Your task to perform on an android device: toggle improve location accuracy Image 0: 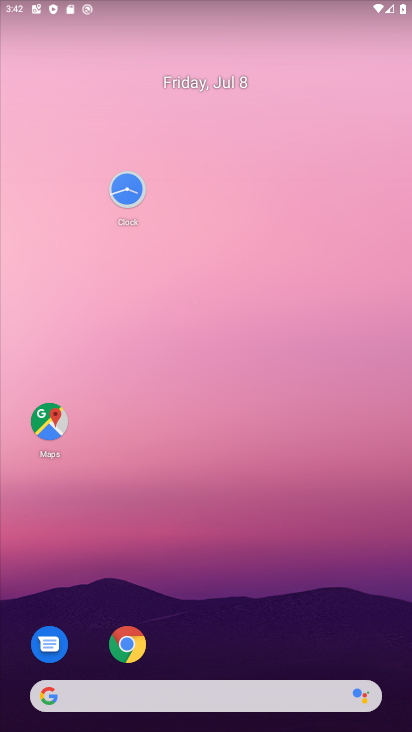
Step 0: drag from (256, 659) to (177, 166)
Your task to perform on an android device: toggle improve location accuracy Image 1: 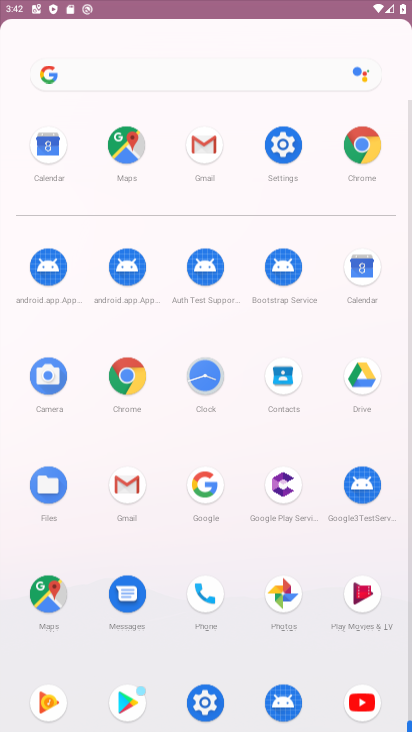
Step 1: drag from (126, 296) to (55, 52)
Your task to perform on an android device: toggle improve location accuracy Image 2: 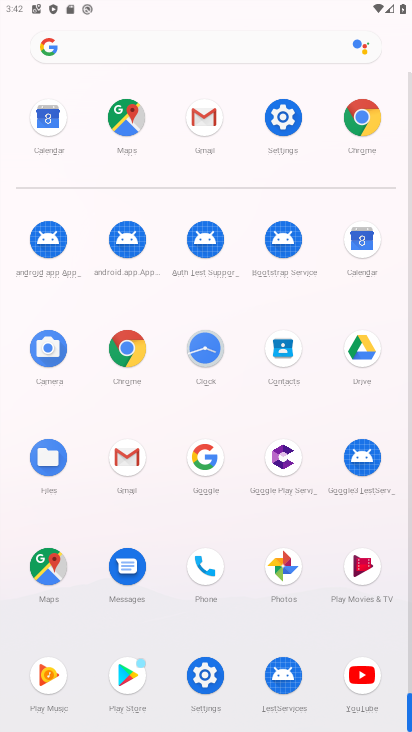
Step 2: click (100, 69)
Your task to perform on an android device: toggle improve location accuracy Image 3: 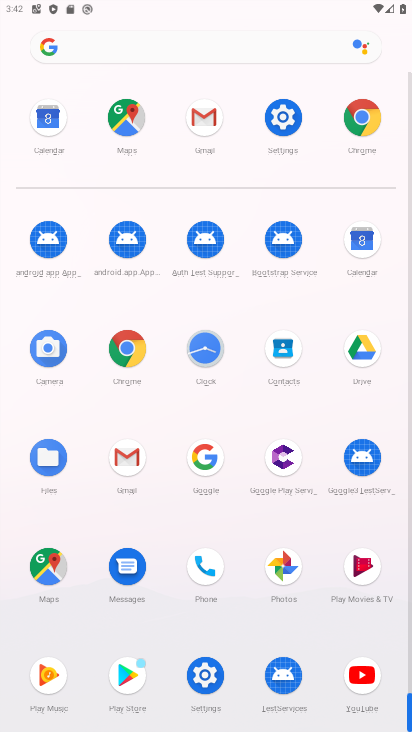
Step 3: click (282, 117)
Your task to perform on an android device: toggle improve location accuracy Image 4: 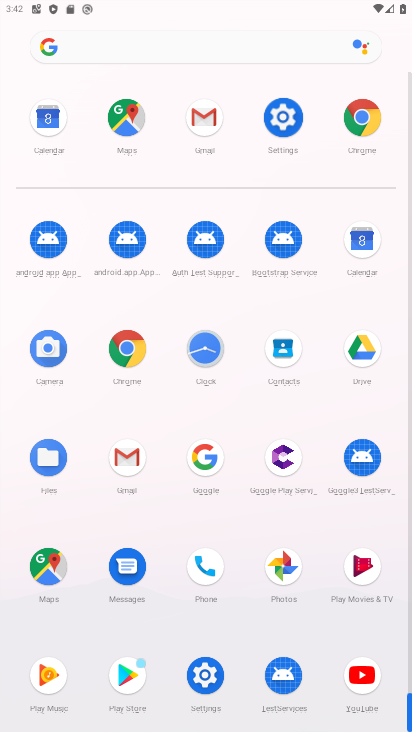
Step 4: click (282, 117)
Your task to perform on an android device: toggle improve location accuracy Image 5: 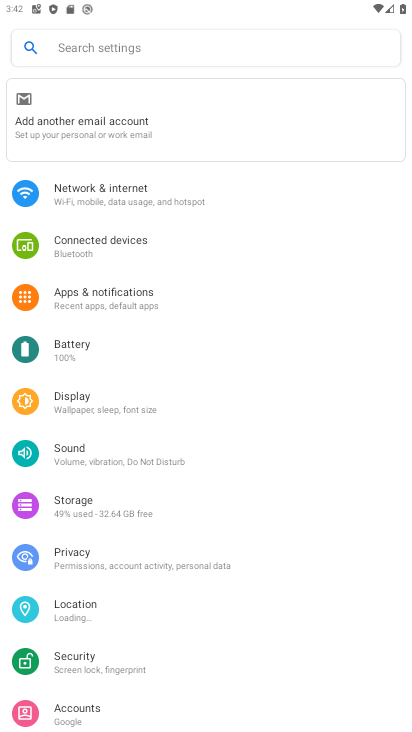
Step 5: drag from (130, 559) to (162, 355)
Your task to perform on an android device: toggle improve location accuracy Image 6: 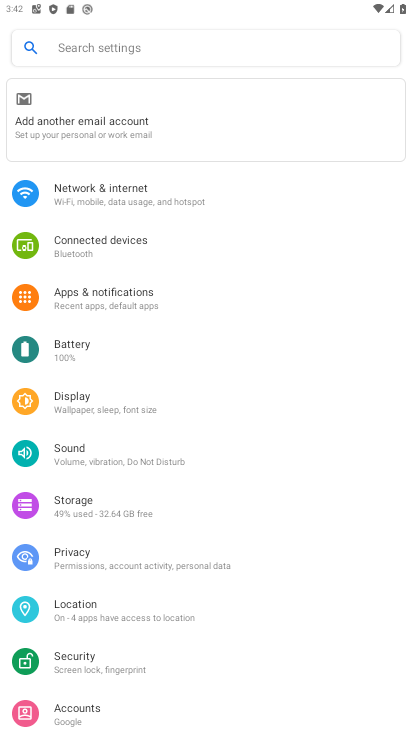
Step 6: click (101, 600)
Your task to perform on an android device: toggle improve location accuracy Image 7: 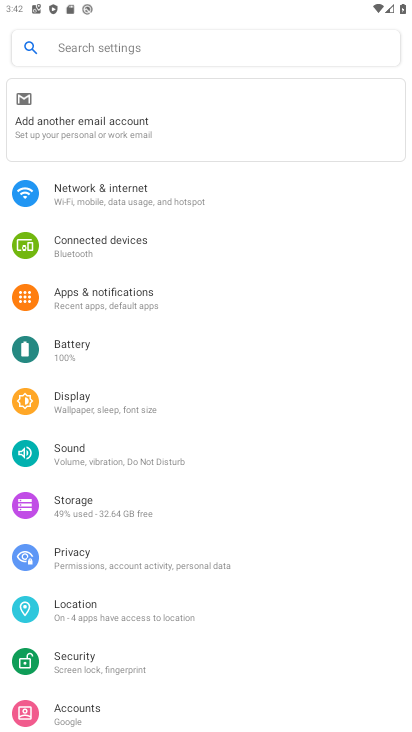
Step 7: click (109, 592)
Your task to perform on an android device: toggle improve location accuracy Image 8: 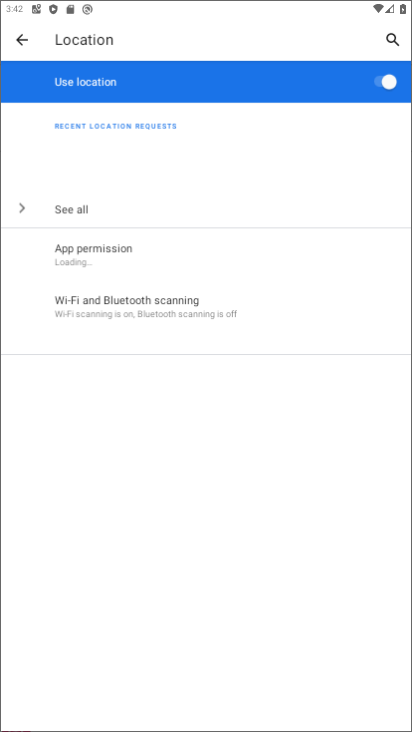
Step 8: click (109, 592)
Your task to perform on an android device: toggle improve location accuracy Image 9: 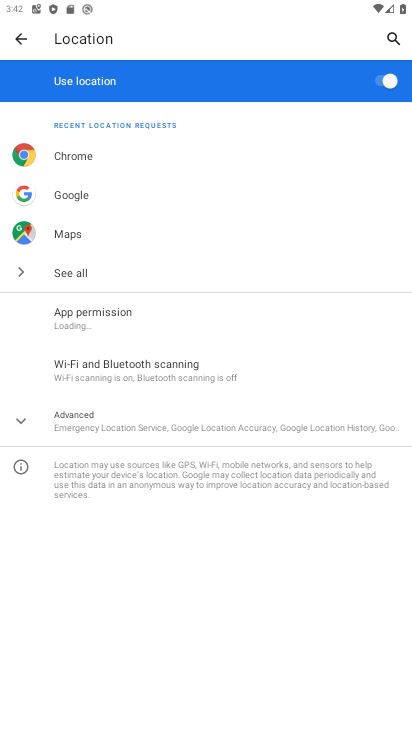
Step 9: click (112, 591)
Your task to perform on an android device: toggle improve location accuracy Image 10: 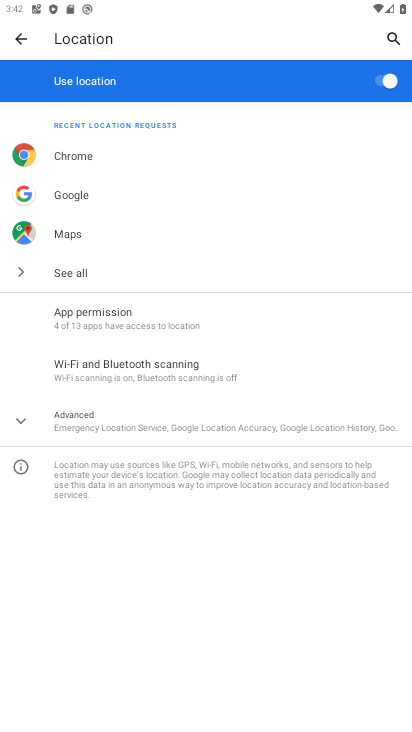
Step 10: click (91, 410)
Your task to perform on an android device: toggle improve location accuracy Image 11: 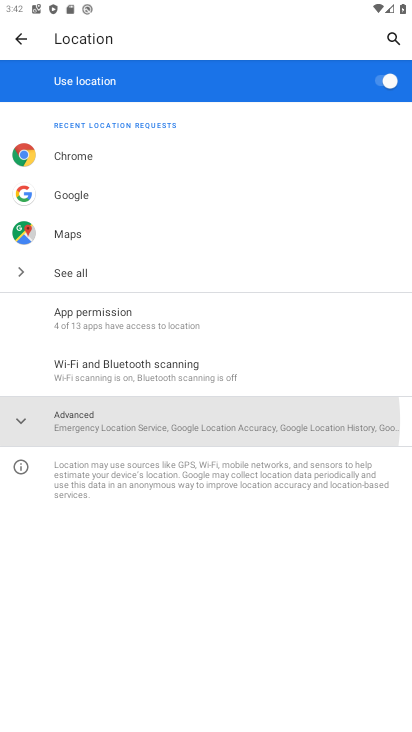
Step 11: click (93, 428)
Your task to perform on an android device: toggle improve location accuracy Image 12: 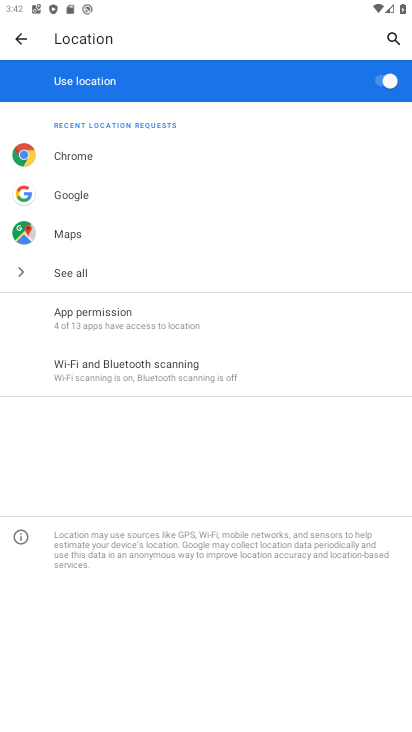
Step 12: click (95, 423)
Your task to perform on an android device: toggle improve location accuracy Image 13: 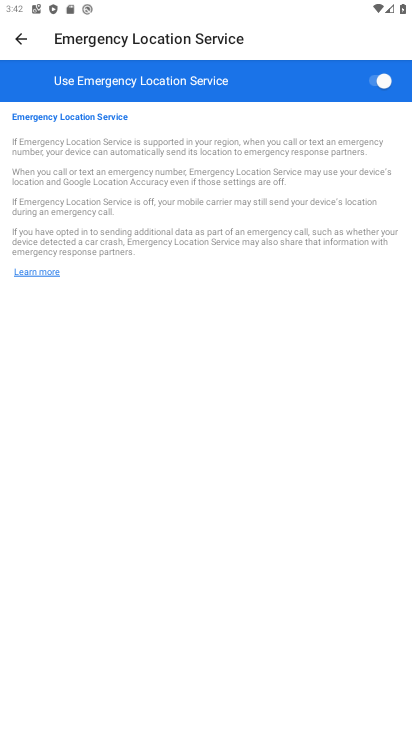
Step 13: click (24, 38)
Your task to perform on an android device: toggle improve location accuracy Image 14: 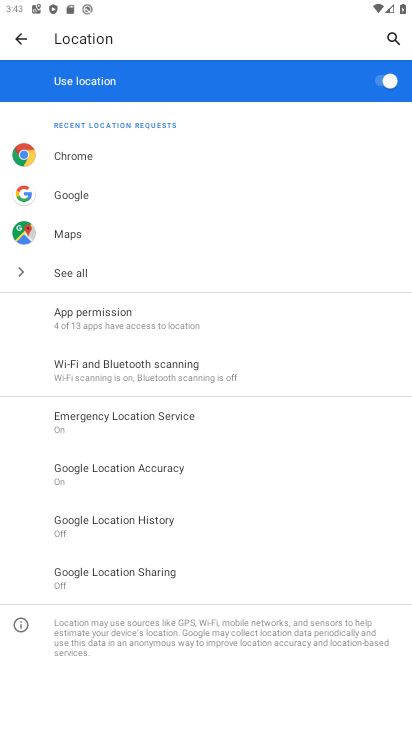
Step 14: click (125, 477)
Your task to perform on an android device: toggle improve location accuracy Image 15: 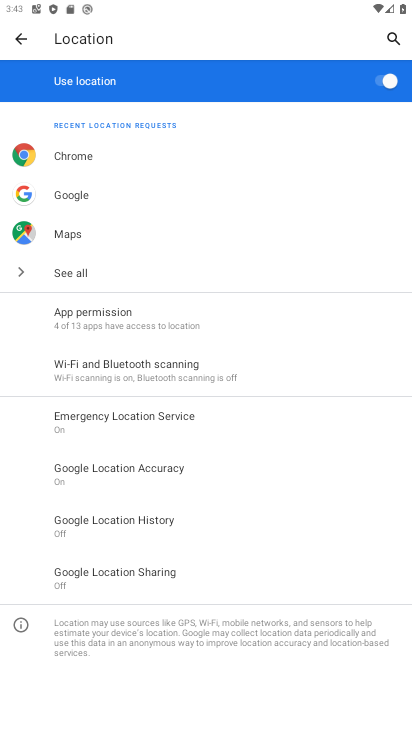
Step 15: click (123, 478)
Your task to perform on an android device: toggle improve location accuracy Image 16: 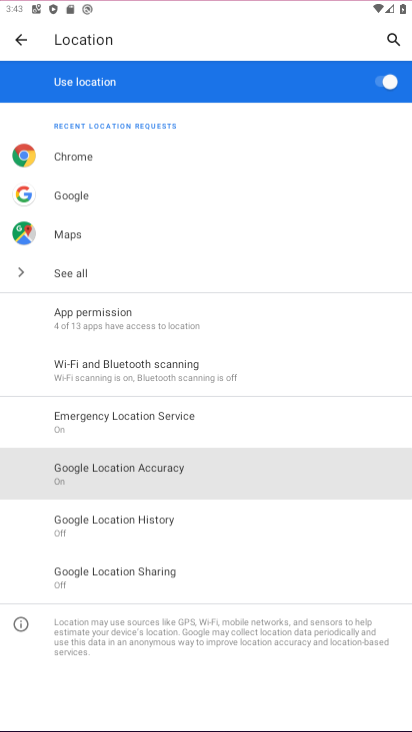
Step 16: click (121, 483)
Your task to perform on an android device: toggle improve location accuracy Image 17: 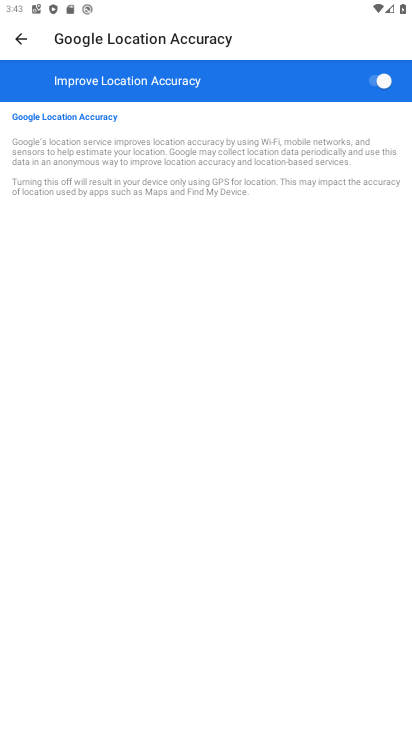
Step 17: click (380, 86)
Your task to perform on an android device: toggle improve location accuracy Image 18: 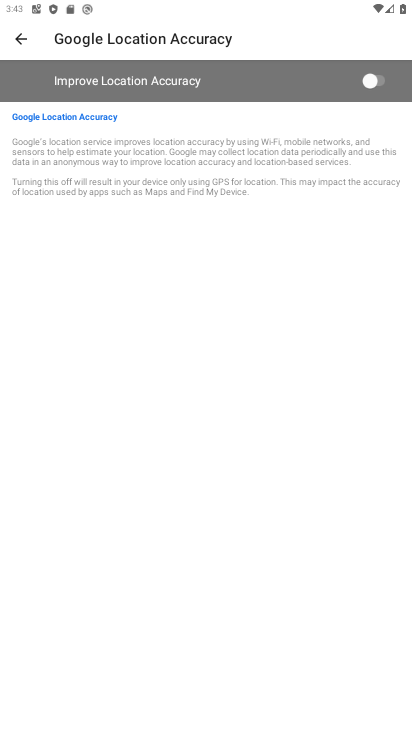
Step 18: task complete